Your task to perform on an android device: change notifications settings Image 0: 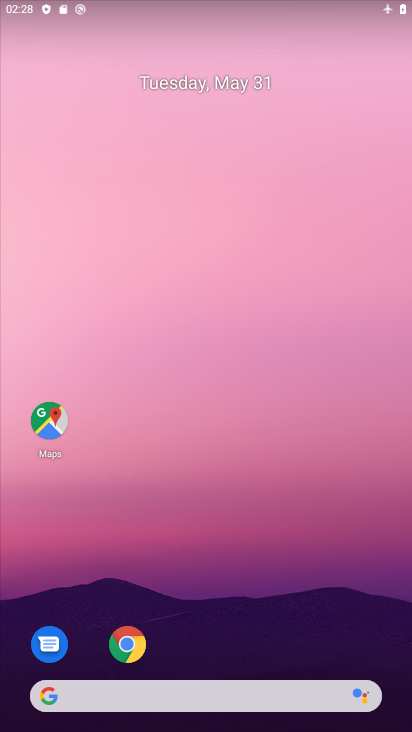
Step 0: drag from (263, 635) to (259, 125)
Your task to perform on an android device: change notifications settings Image 1: 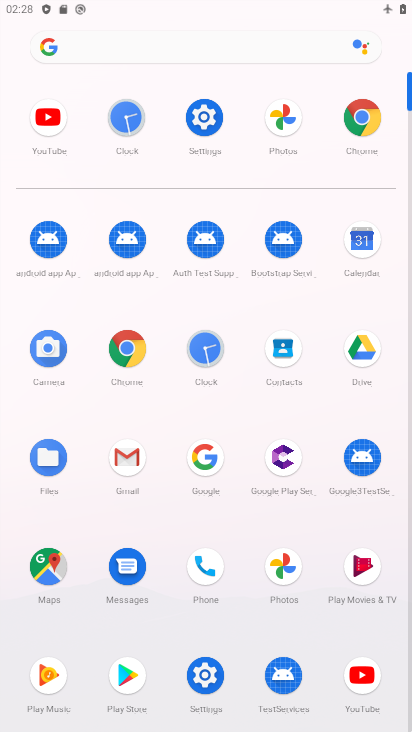
Step 1: click (212, 105)
Your task to perform on an android device: change notifications settings Image 2: 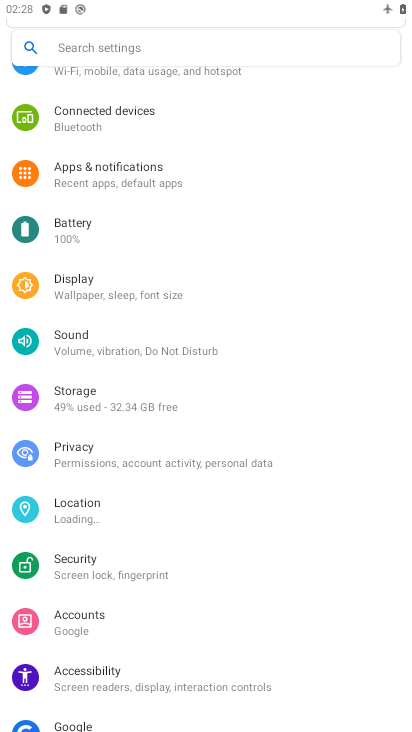
Step 2: click (130, 168)
Your task to perform on an android device: change notifications settings Image 3: 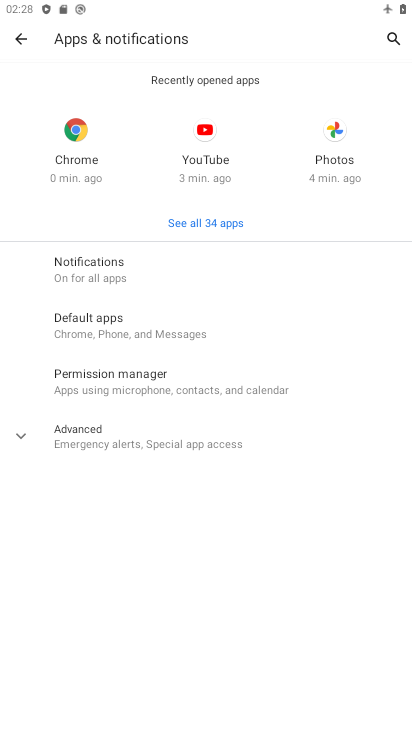
Step 3: click (121, 283)
Your task to perform on an android device: change notifications settings Image 4: 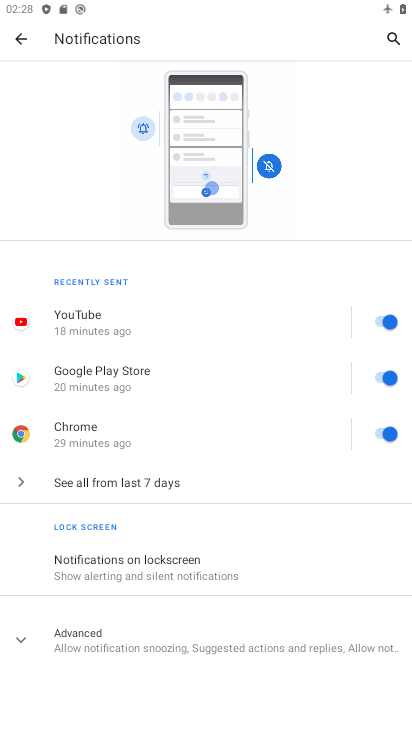
Step 4: click (126, 649)
Your task to perform on an android device: change notifications settings Image 5: 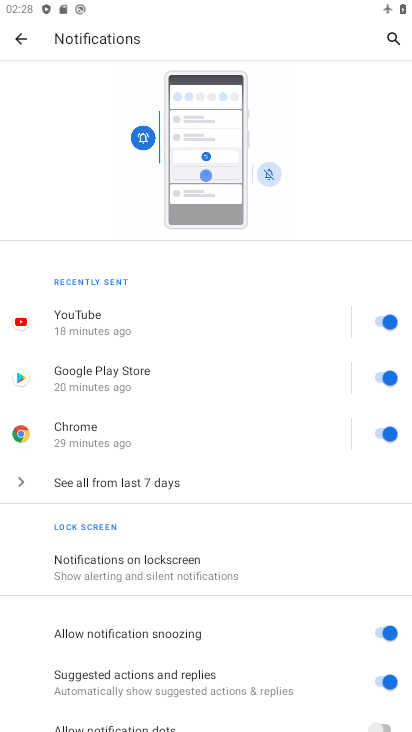
Step 5: click (392, 631)
Your task to perform on an android device: change notifications settings Image 6: 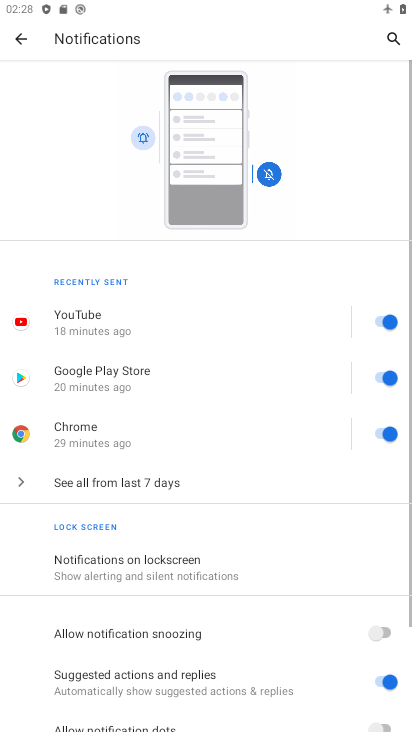
Step 6: task complete